Your task to perform on an android device: check out phone information Image 0: 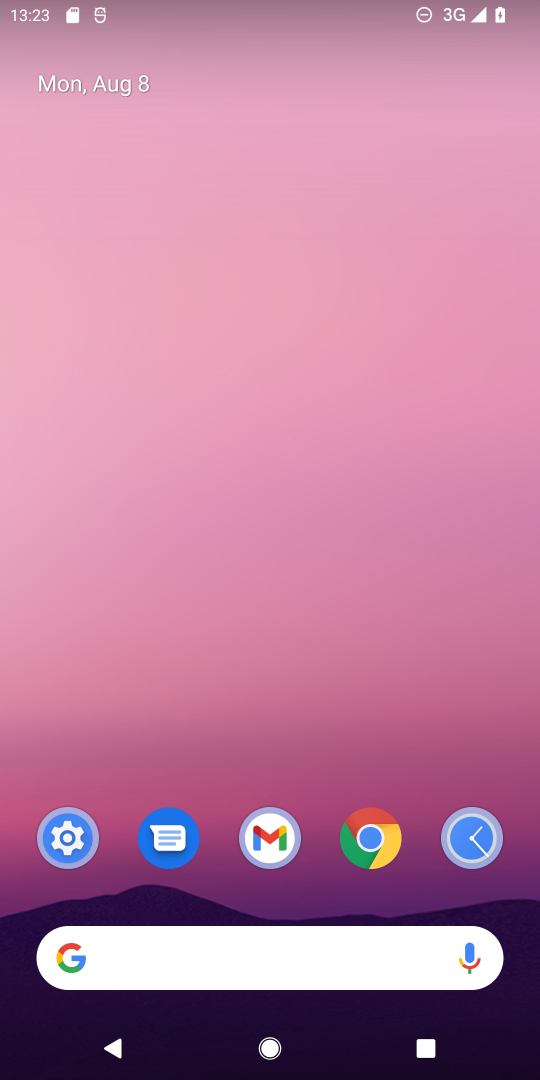
Step 0: press home button
Your task to perform on an android device: check out phone information Image 1: 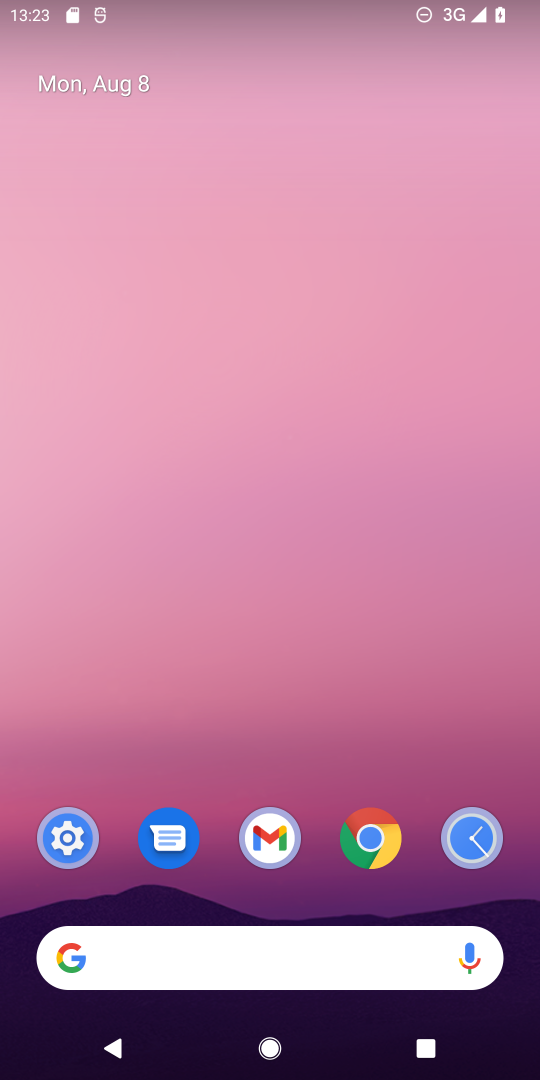
Step 1: click (64, 844)
Your task to perform on an android device: check out phone information Image 2: 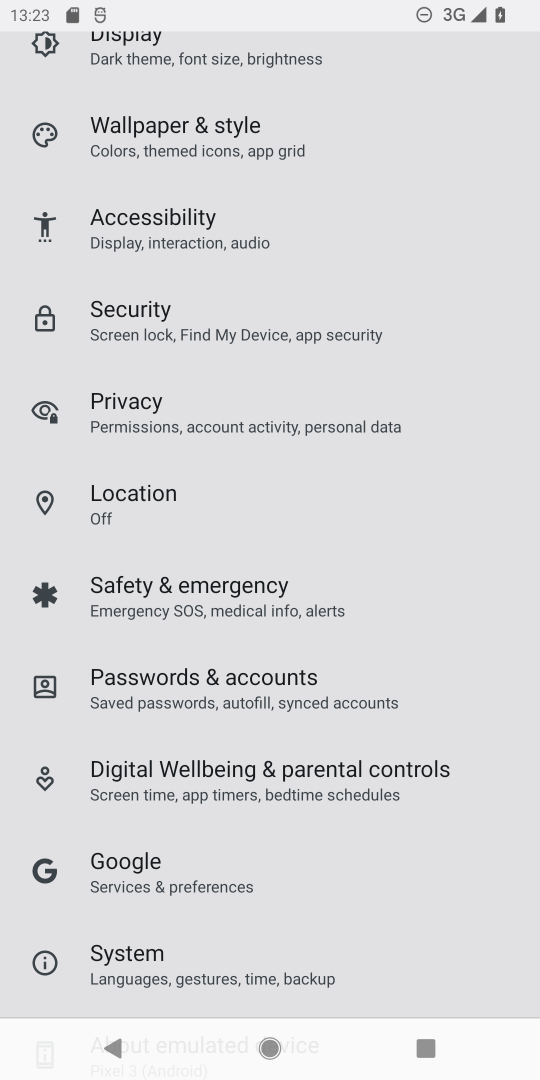
Step 2: drag from (357, 895) to (293, 148)
Your task to perform on an android device: check out phone information Image 3: 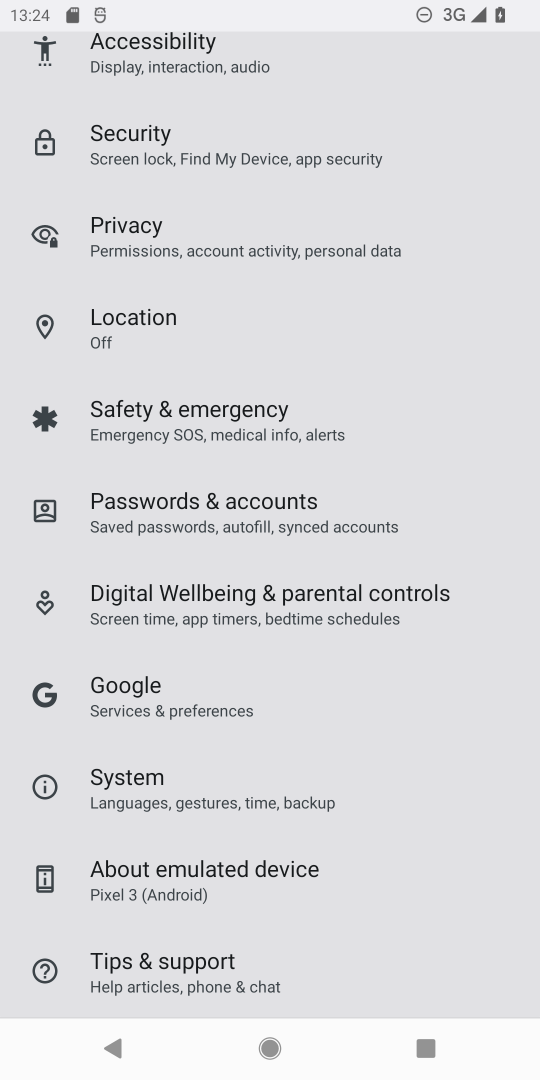
Step 3: click (173, 883)
Your task to perform on an android device: check out phone information Image 4: 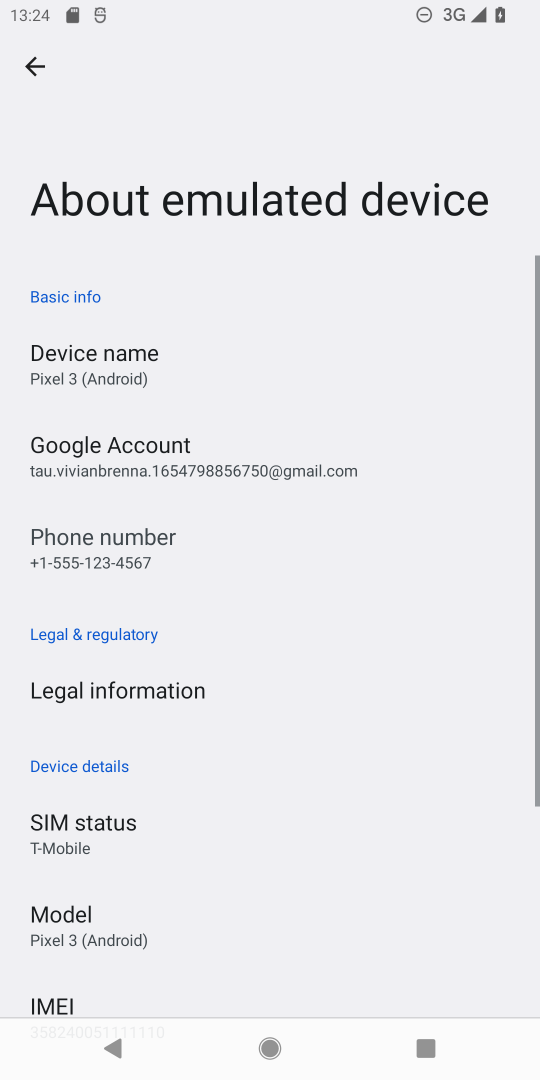
Step 4: task complete